Your task to perform on an android device: open wifi settings Image 0: 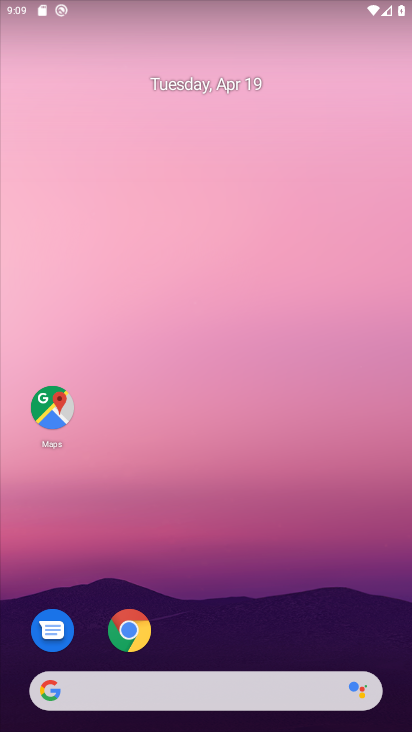
Step 0: drag from (215, 709) to (322, 164)
Your task to perform on an android device: open wifi settings Image 1: 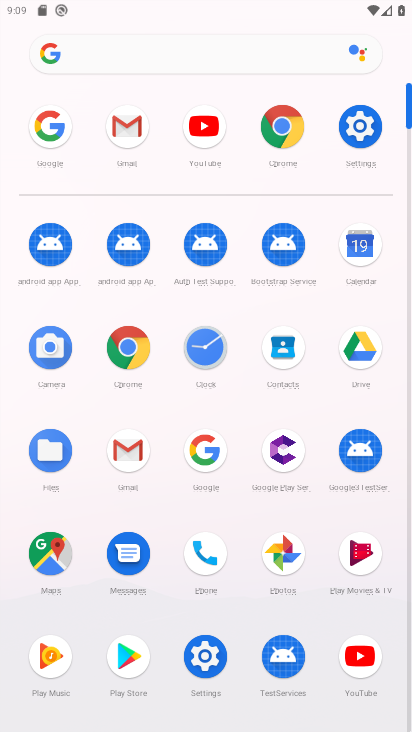
Step 1: click (368, 141)
Your task to perform on an android device: open wifi settings Image 2: 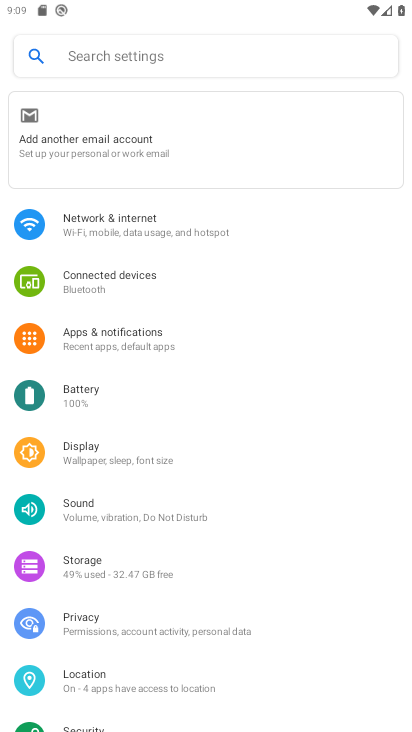
Step 2: click (173, 231)
Your task to perform on an android device: open wifi settings Image 3: 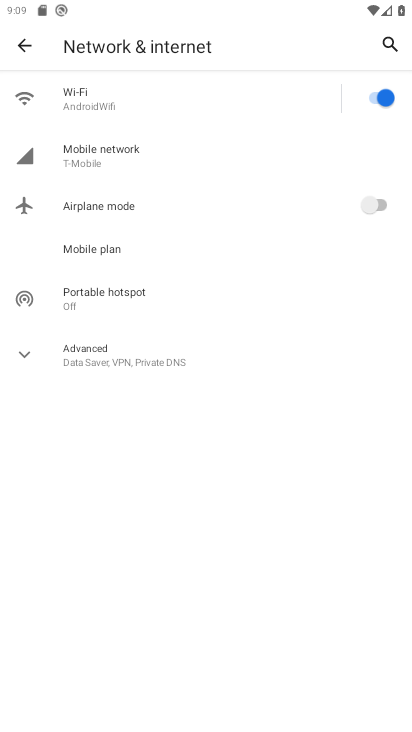
Step 3: click (226, 112)
Your task to perform on an android device: open wifi settings Image 4: 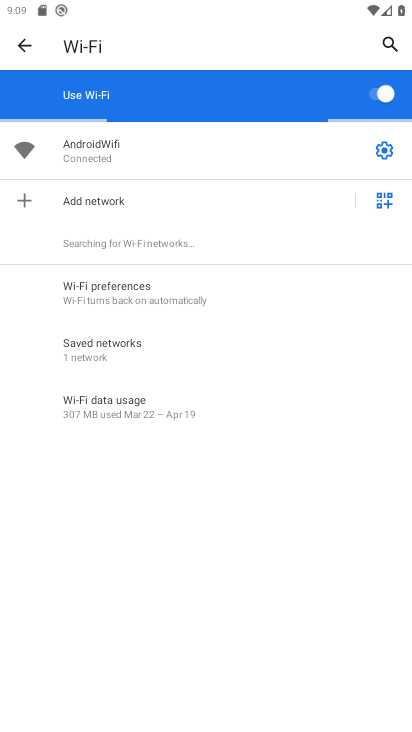
Step 4: task complete